Your task to perform on an android device: Set an alarm for 8pm Image 0: 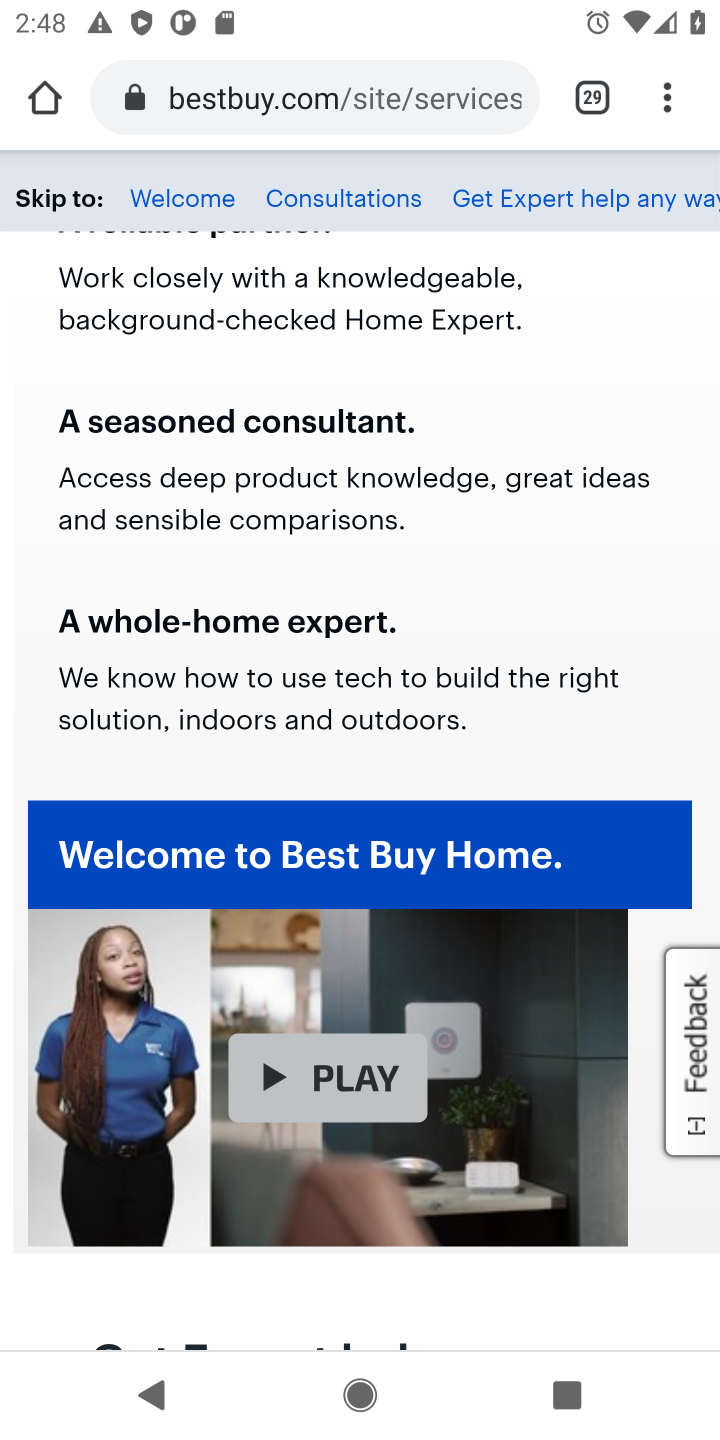
Step 0: press home button
Your task to perform on an android device: Set an alarm for 8pm Image 1: 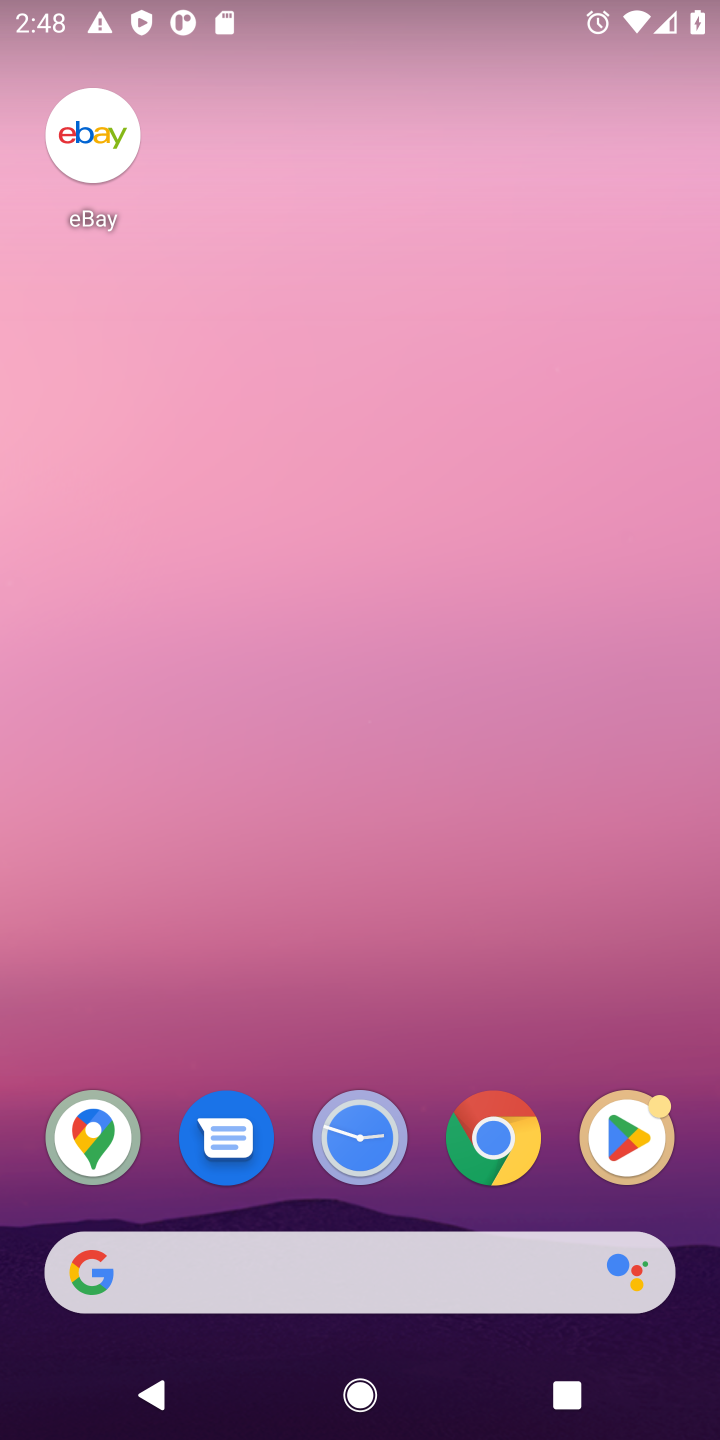
Step 1: click (342, 1133)
Your task to perform on an android device: Set an alarm for 8pm Image 2: 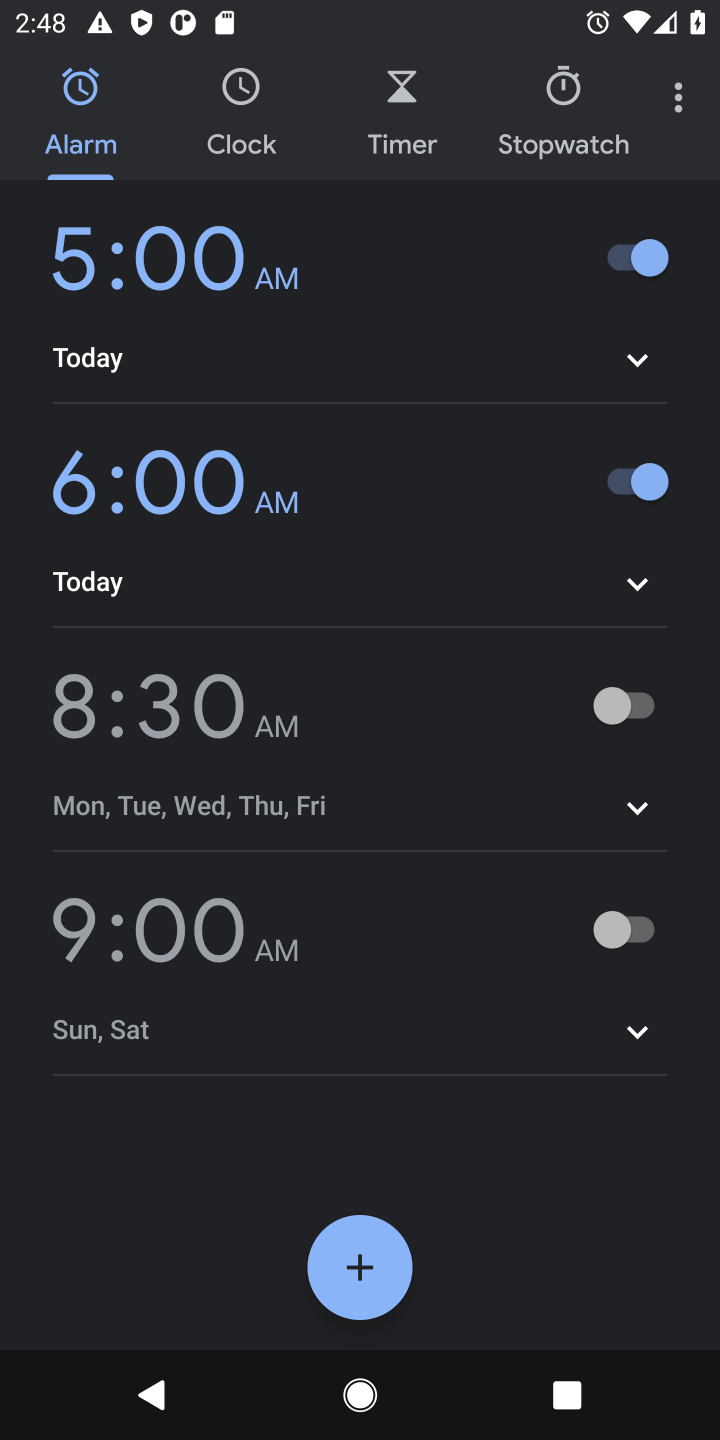
Step 2: click (363, 1175)
Your task to perform on an android device: Set an alarm for 8pm Image 3: 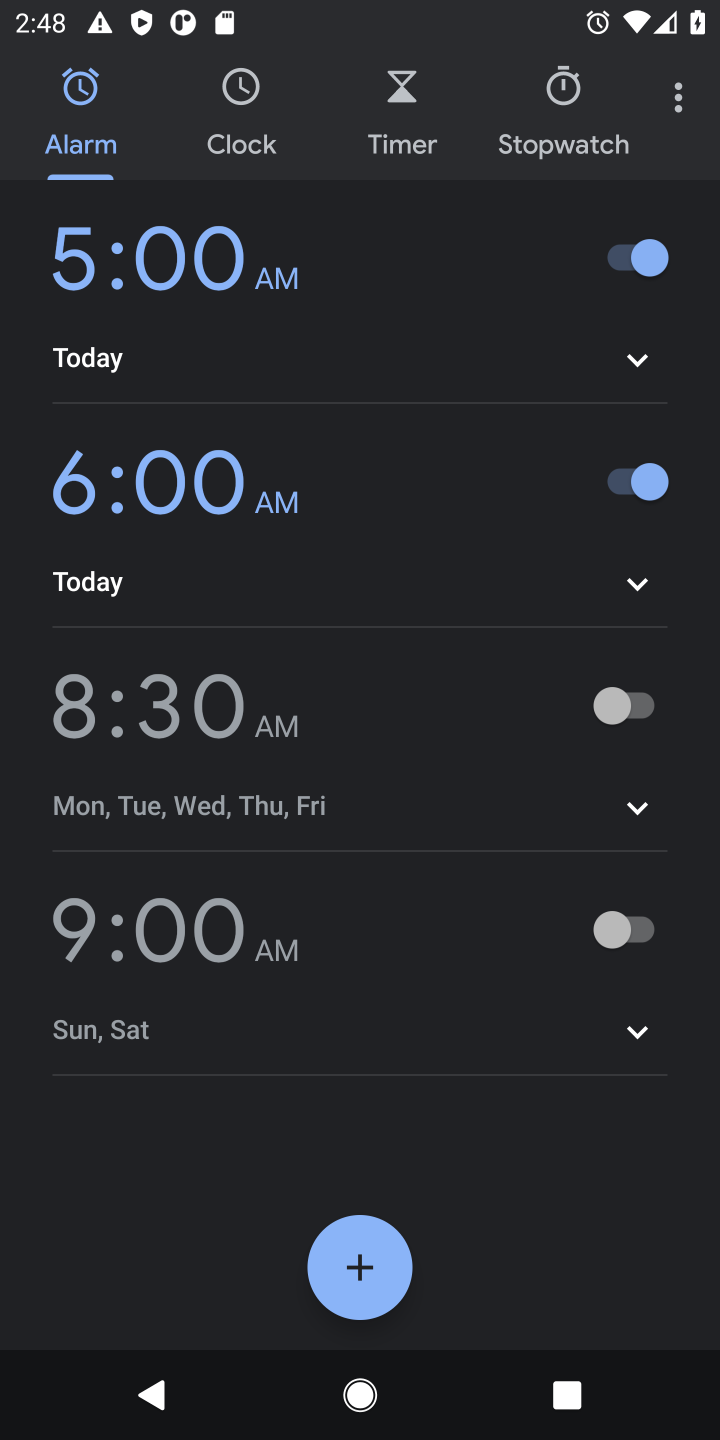
Step 3: click (363, 1275)
Your task to perform on an android device: Set an alarm for 8pm Image 4: 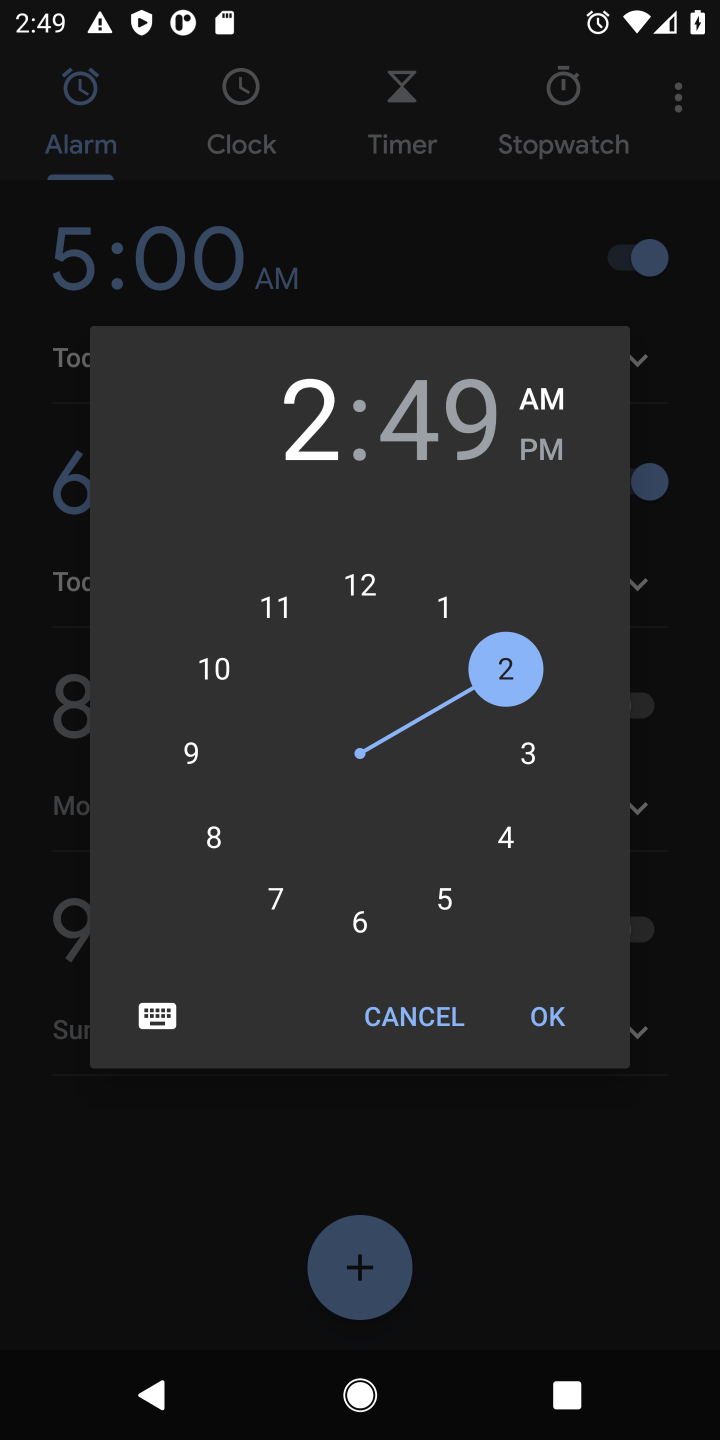
Step 4: click (220, 834)
Your task to perform on an android device: Set an alarm for 8pm Image 5: 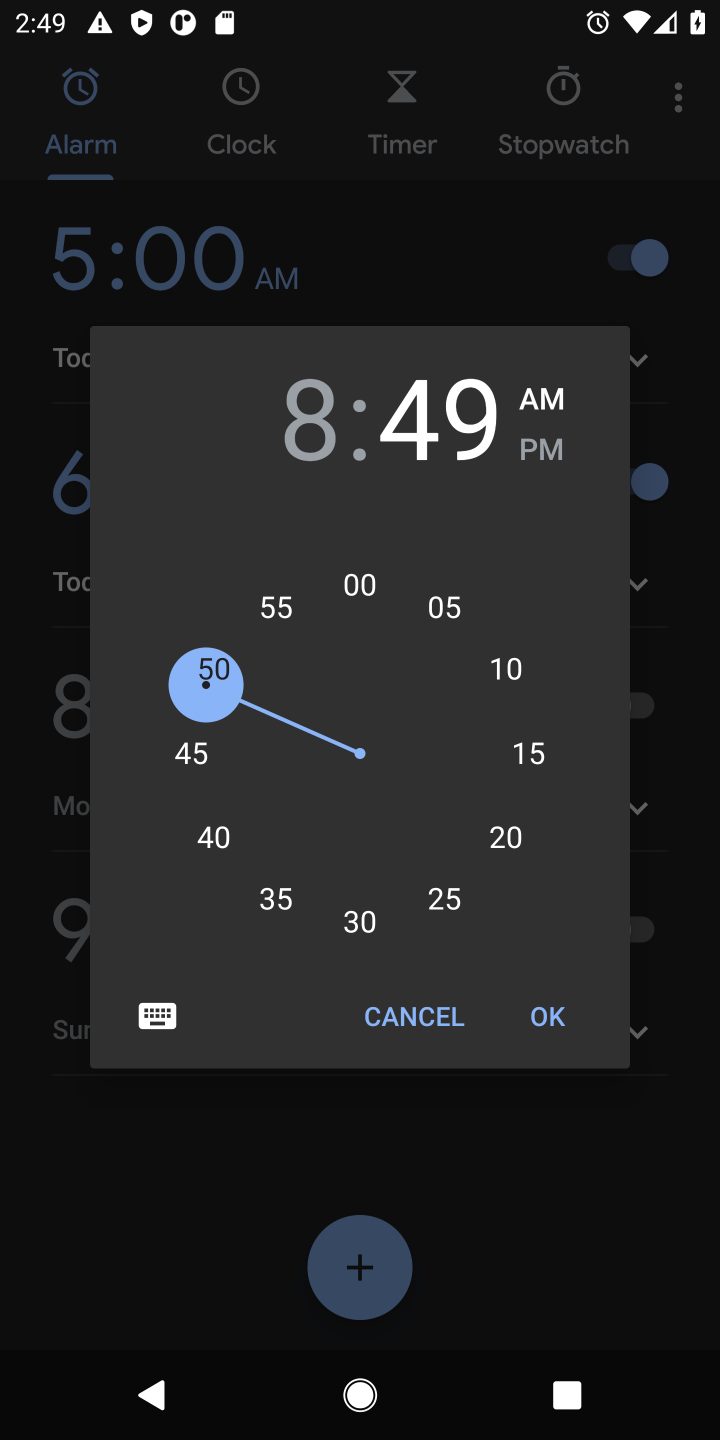
Step 5: click (362, 589)
Your task to perform on an android device: Set an alarm for 8pm Image 6: 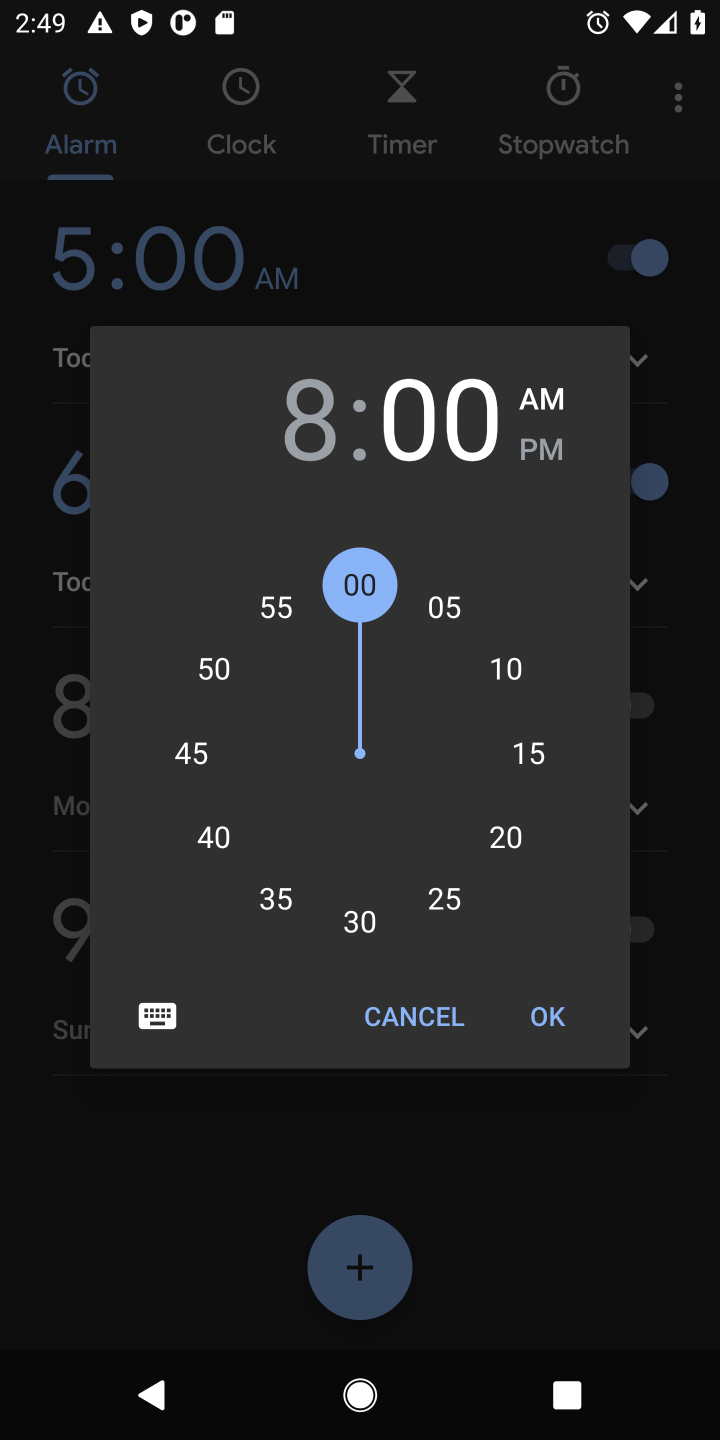
Step 6: click (541, 438)
Your task to perform on an android device: Set an alarm for 8pm Image 7: 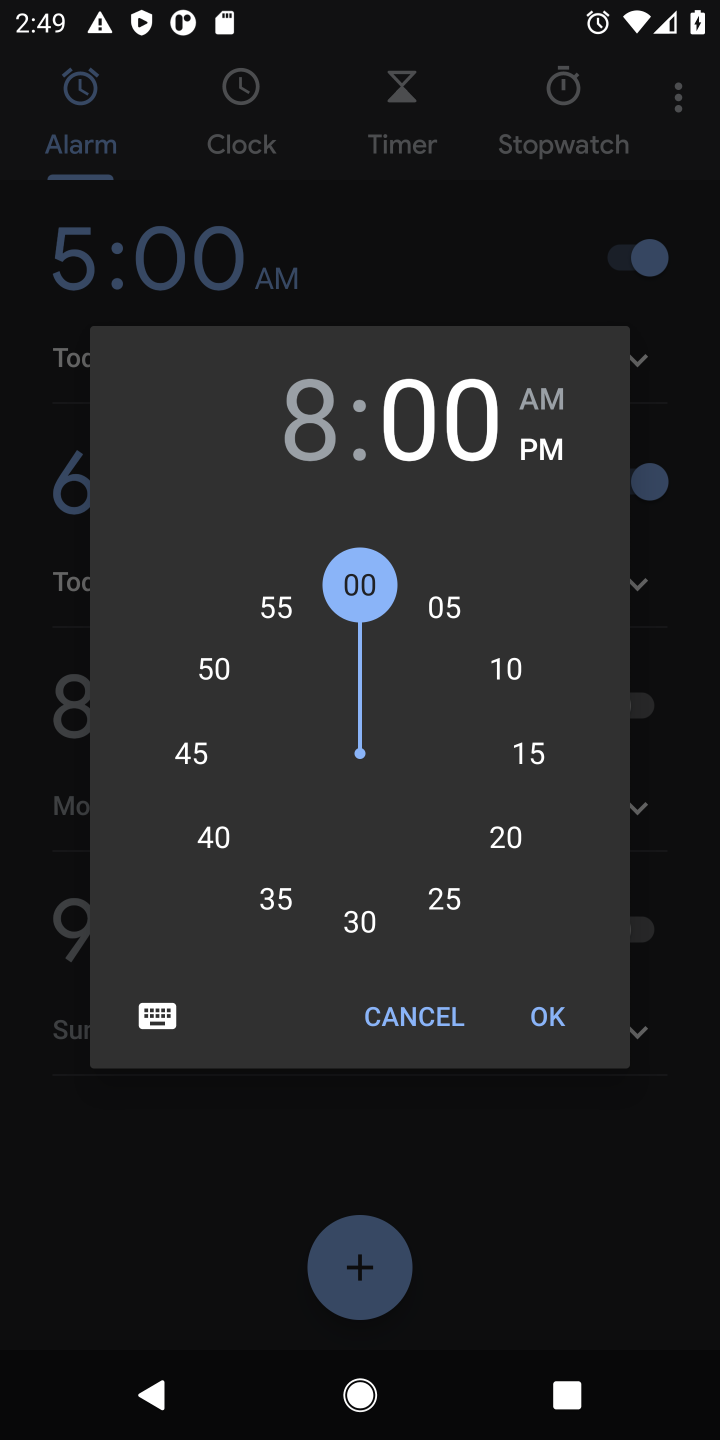
Step 7: click (541, 1024)
Your task to perform on an android device: Set an alarm for 8pm Image 8: 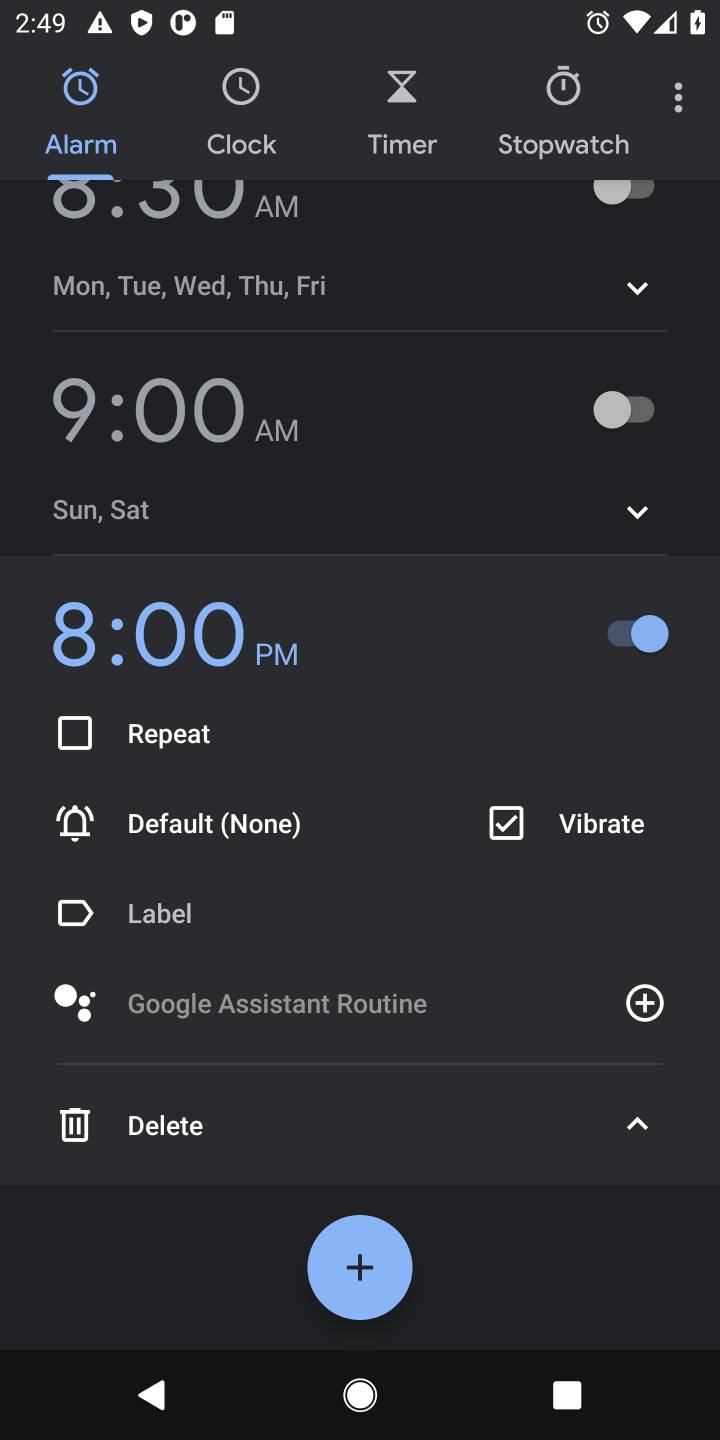
Step 8: task complete